Your task to perform on an android device: Open notification settings Image 0: 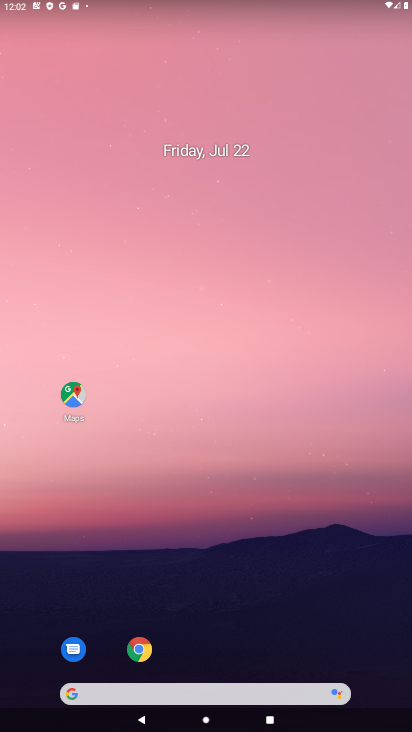
Step 0: drag from (226, 721) to (226, 229)
Your task to perform on an android device: Open notification settings Image 1: 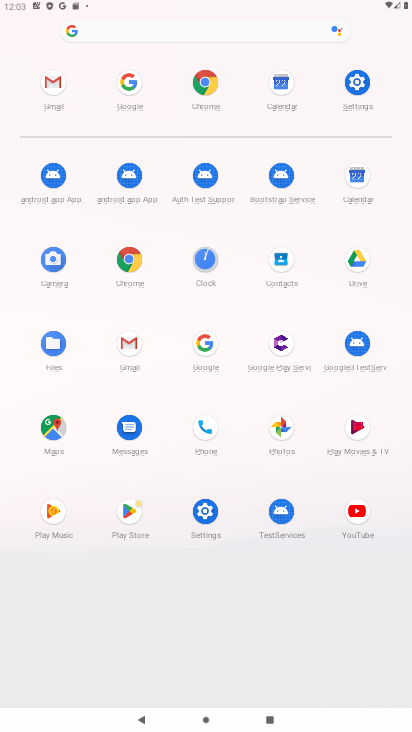
Step 1: click (360, 79)
Your task to perform on an android device: Open notification settings Image 2: 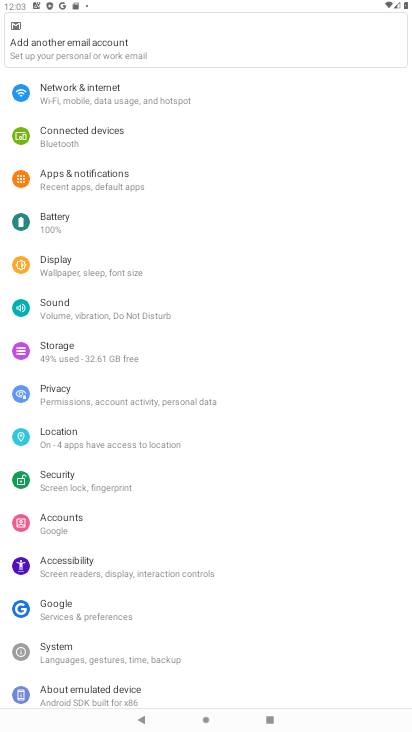
Step 2: click (97, 183)
Your task to perform on an android device: Open notification settings Image 3: 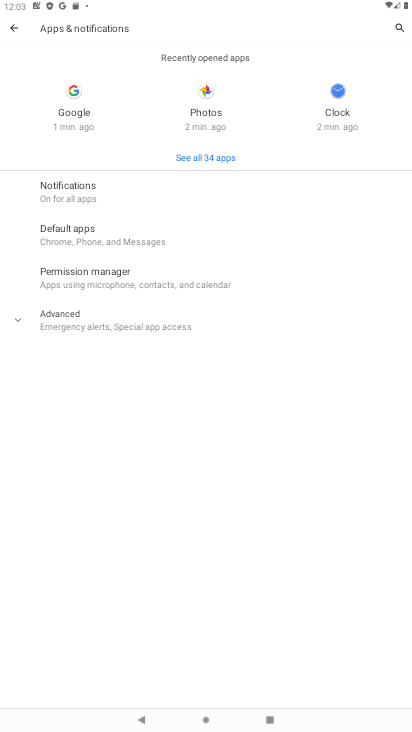
Step 3: click (79, 189)
Your task to perform on an android device: Open notification settings Image 4: 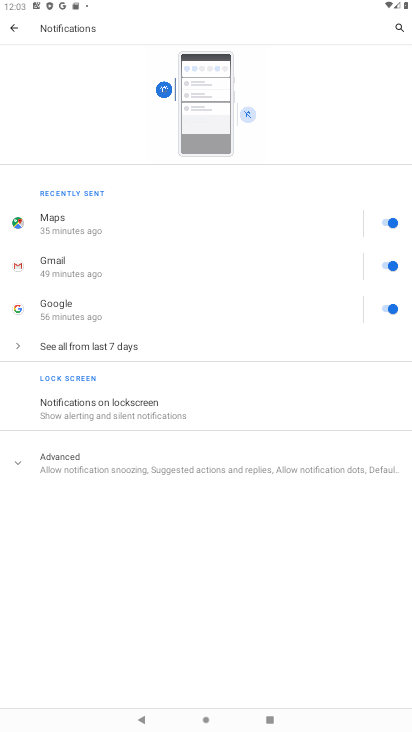
Step 4: task complete